Your task to perform on an android device: Add "asus zenbook" to the cart on costco Image 0: 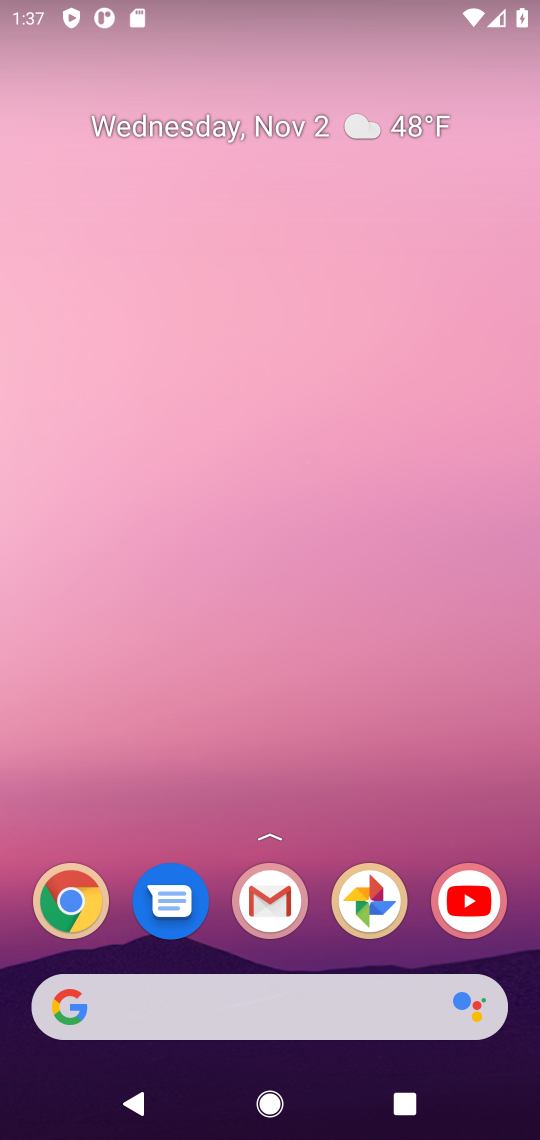
Step 0: drag from (323, 939) to (309, 45)
Your task to perform on an android device: Add "asus zenbook" to the cart on costco Image 1: 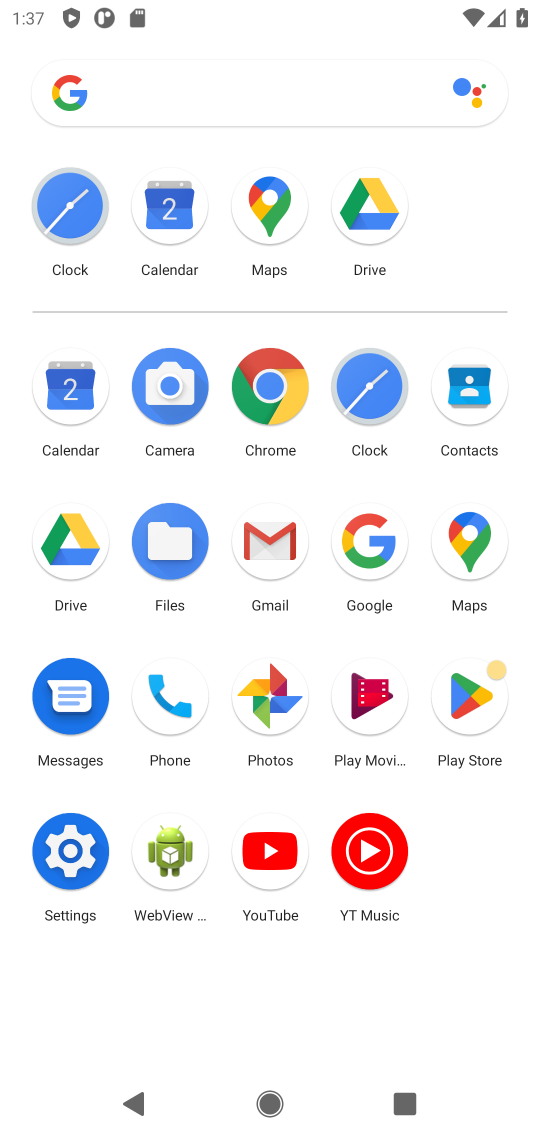
Step 1: click (275, 379)
Your task to perform on an android device: Add "asus zenbook" to the cart on costco Image 2: 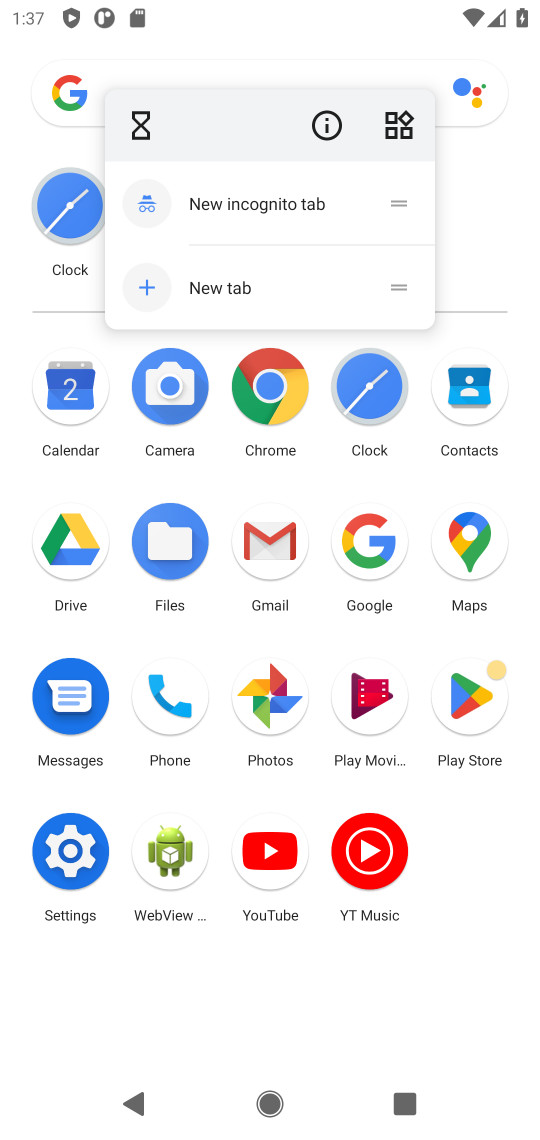
Step 2: click (270, 395)
Your task to perform on an android device: Add "asus zenbook" to the cart on costco Image 3: 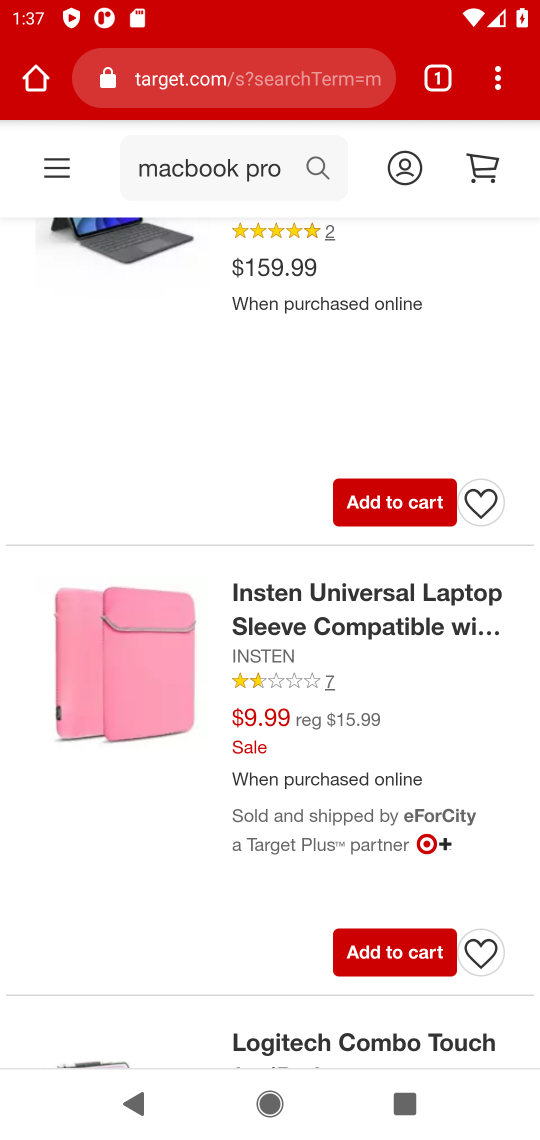
Step 3: click (284, 92)
Your task to perform on an android device: Add "asus zenbook" to the cart on costco Image 4: 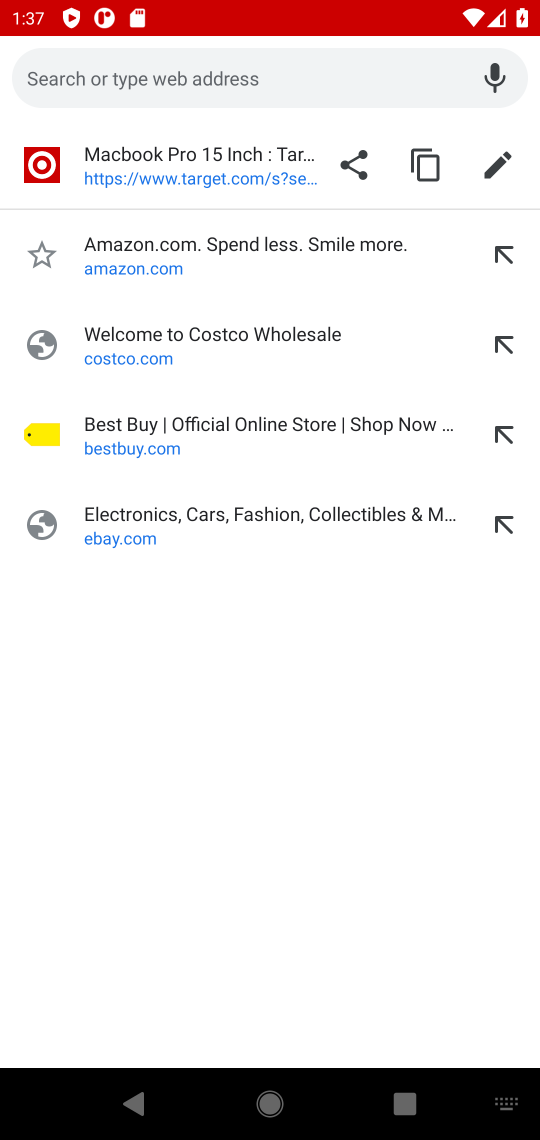
Step 4: type "costco.com"
Your task to perform on an android device: Add "asus zenbook" to the cart on costco Image 5: 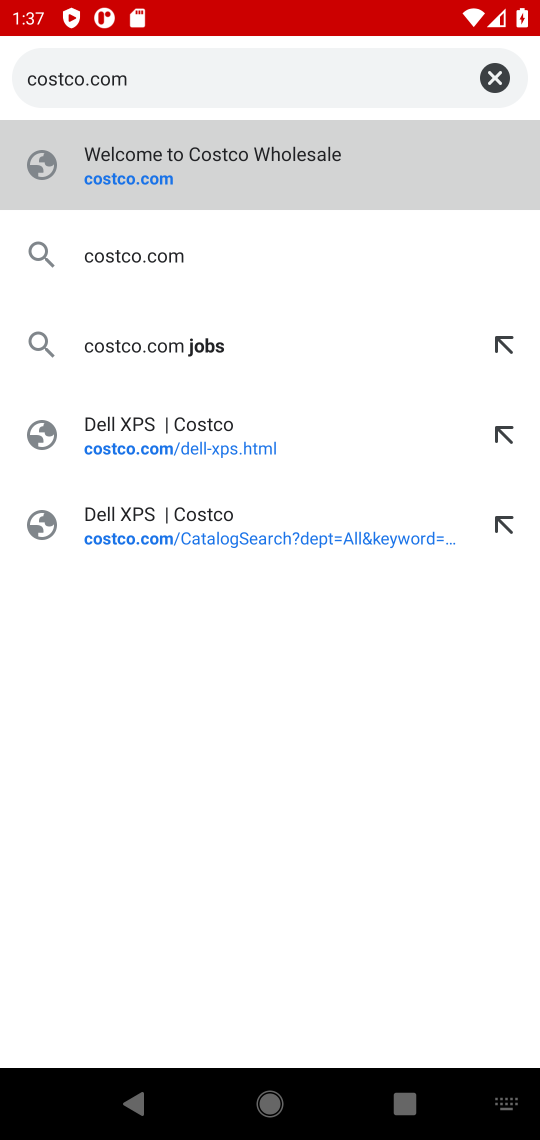
Step 5: press enter
Your task to perform on an android device: Add "asus zenbook" to the cart on costco Image 6: 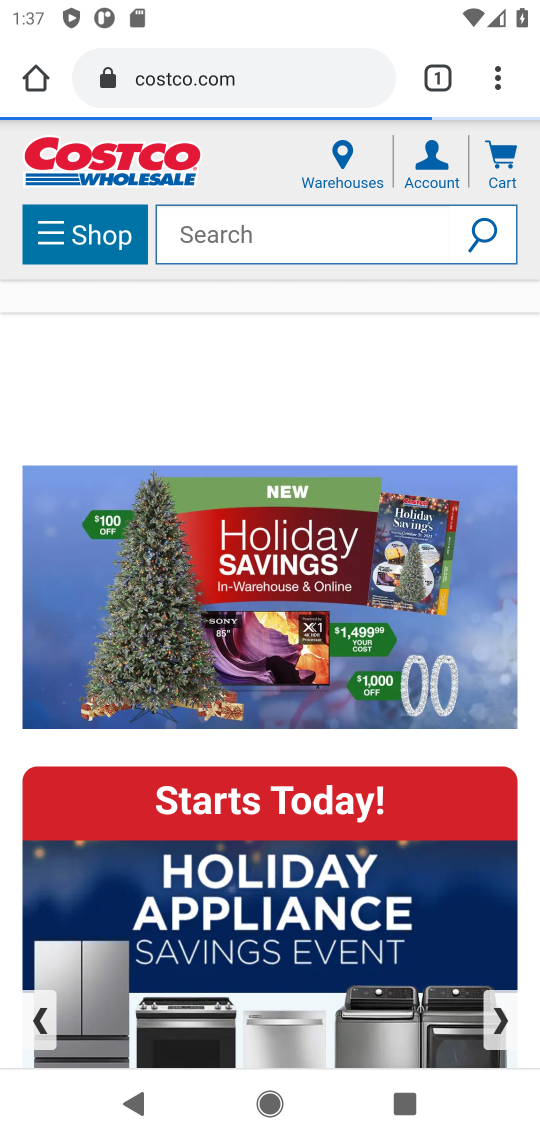
Step 6: click (297, 250)
Your task to perform on an android device: Add "asus zenbook" to the cart on costco Image 7: 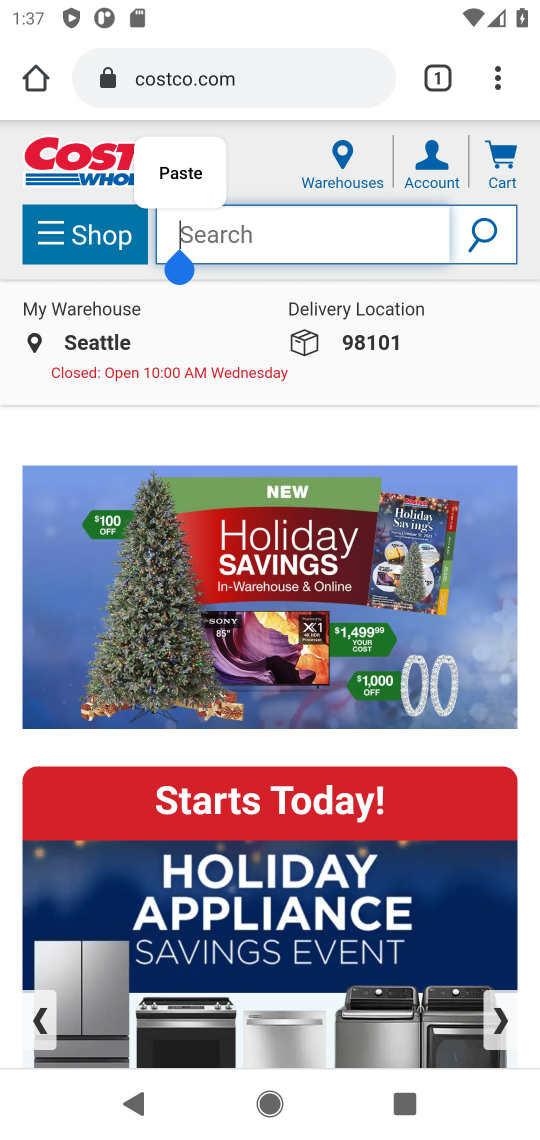
Step 7: type "asus zenbook"
Your task to perform on an android device: Add "asus zenbook" to the cart on costco Image 8: 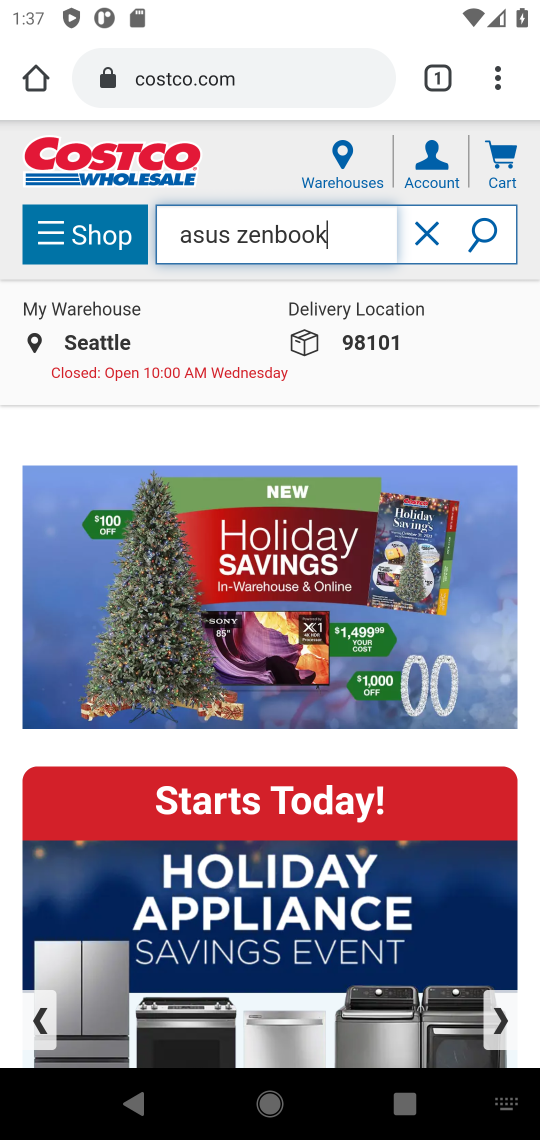
Step 8: press enter
Your task to perform on an android device: Add "asus zenbook" to the cart on costco Image 9: 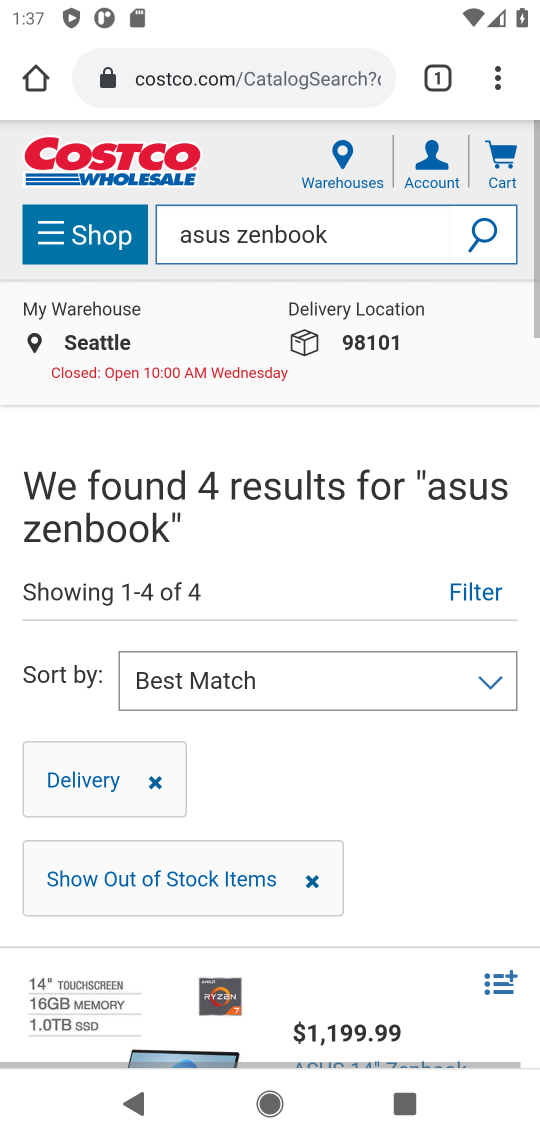
Step 9: drag from (407, 803) to (387, 331)
Your task to perform on an android device: Add "asus zenbook" to the cart on costco Image 10: 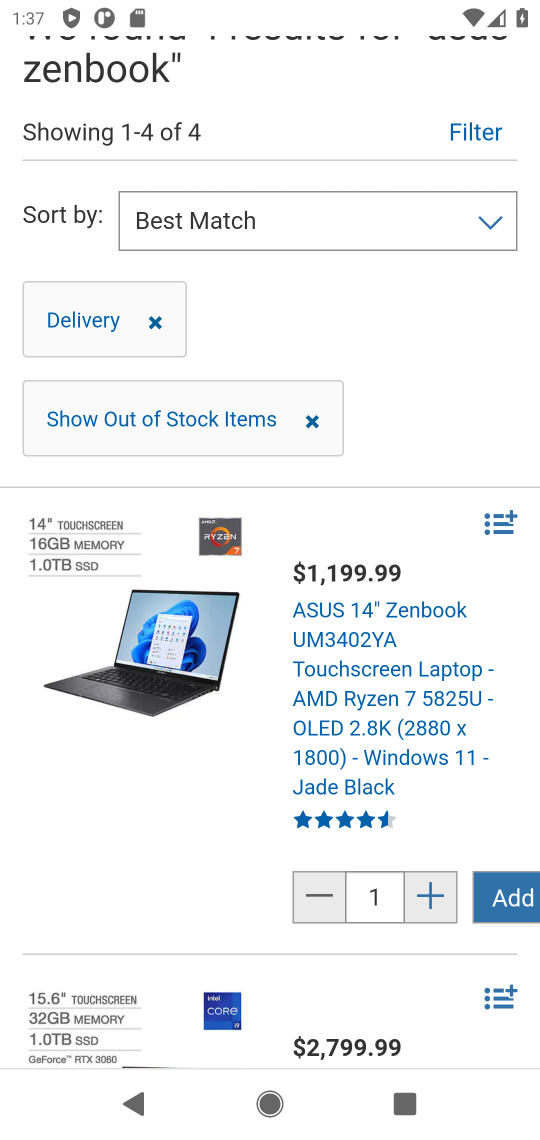
Step 10: click (515, 907)
Your task to perform on an android device: Add "asus zenbook" to the cart on costco Image 11: 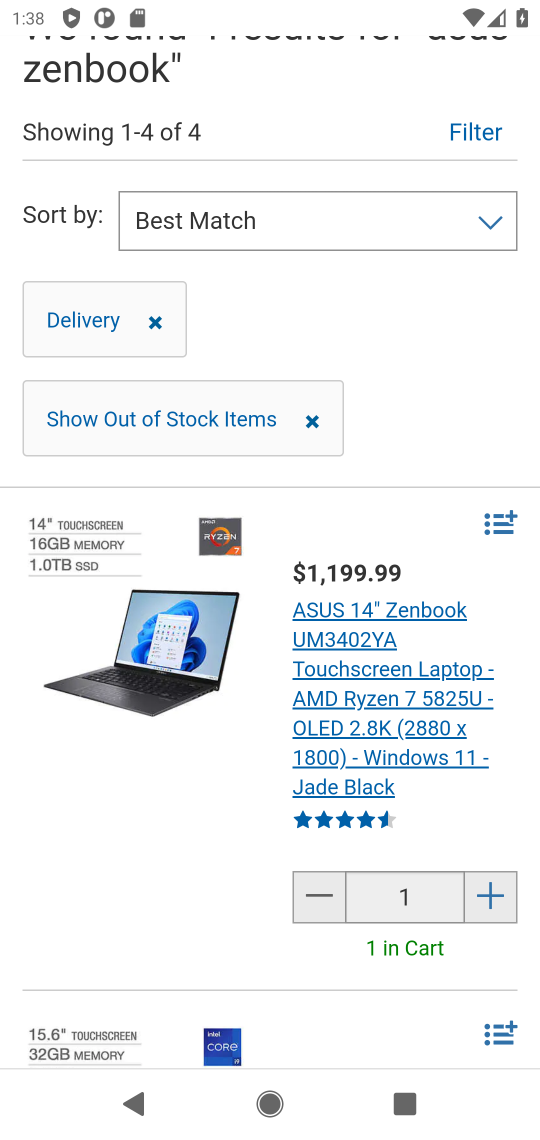
Step 11: drag from (410, 359) to (332, 660)
Your task to perform on an android device: Add "asus zenbook" to the cart on costco Image 12: 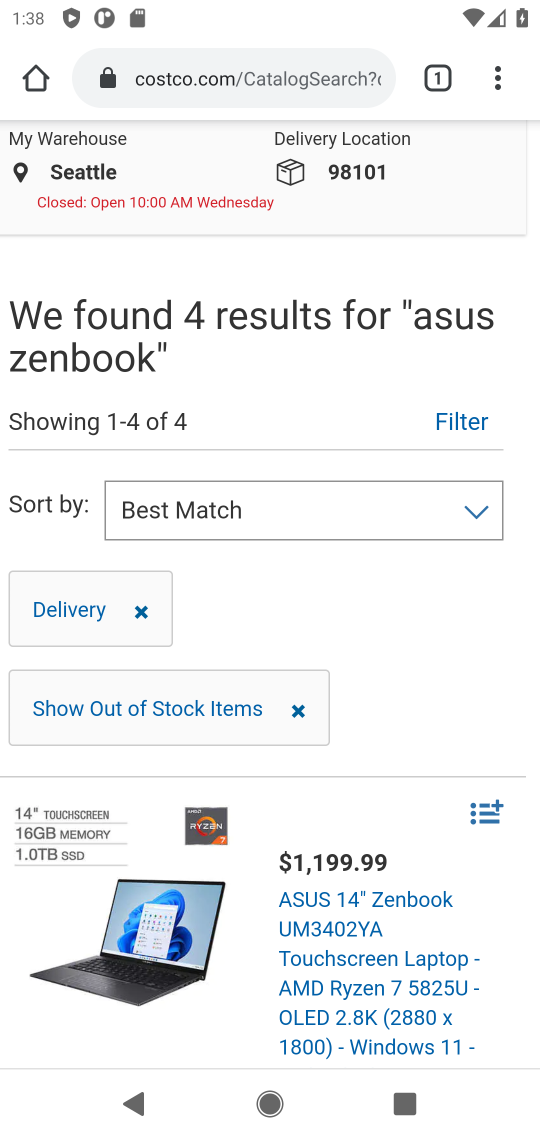
Step 12: drag from (410, 193) to (296, 702)
Your task to perform on an android device: Add "asus zenbook" to the cart on costco Image 13: 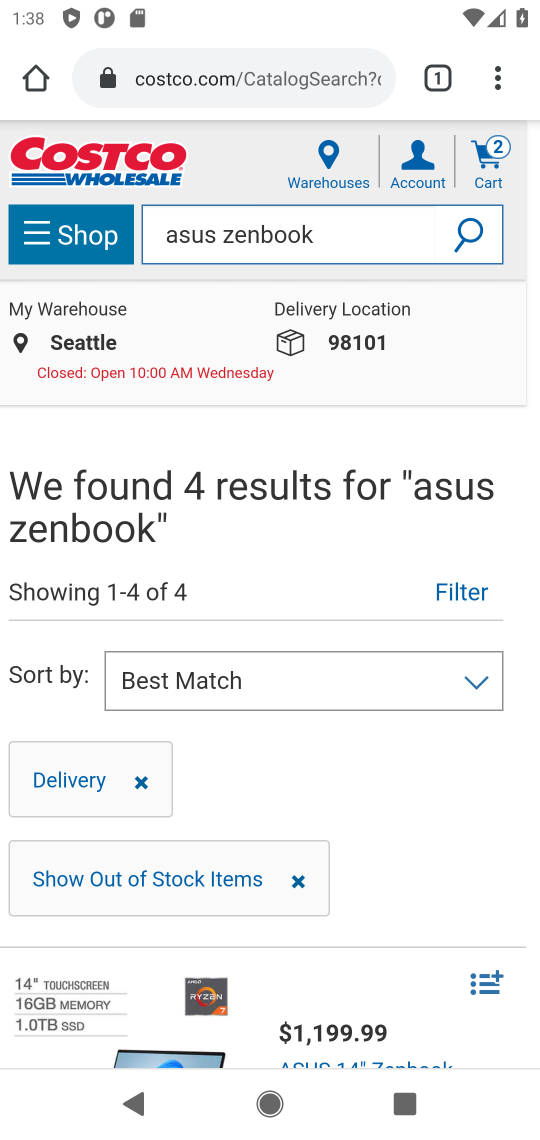
Step 13: click (494, 149)
Your task to perform on an android device: Add "asus zenbook" to the cart on costco Image 14: 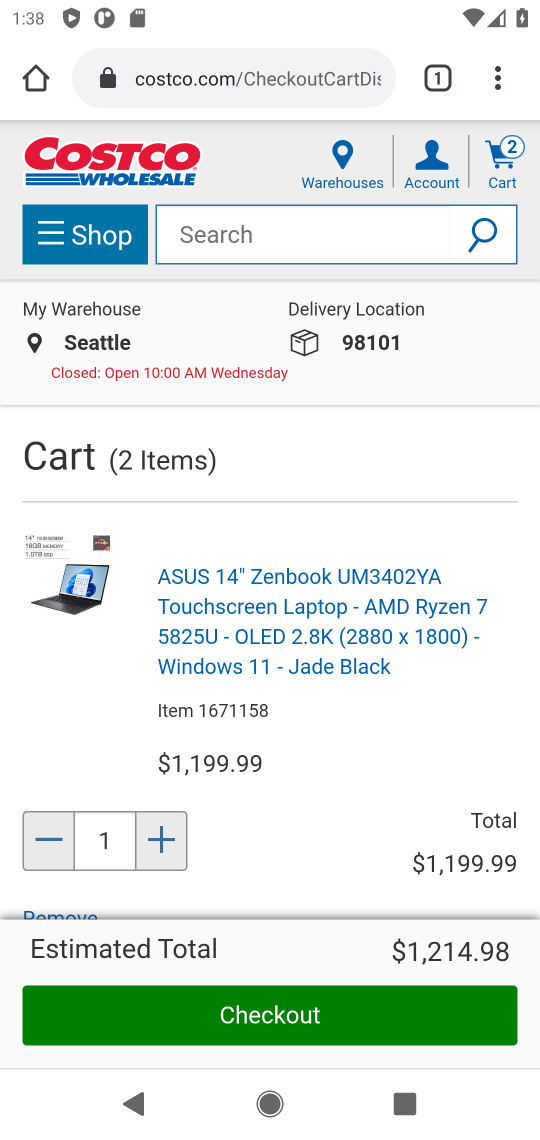
Step 14: task complete